Your task to perform on an android device: visit the assistant section in the google photos Image 0: 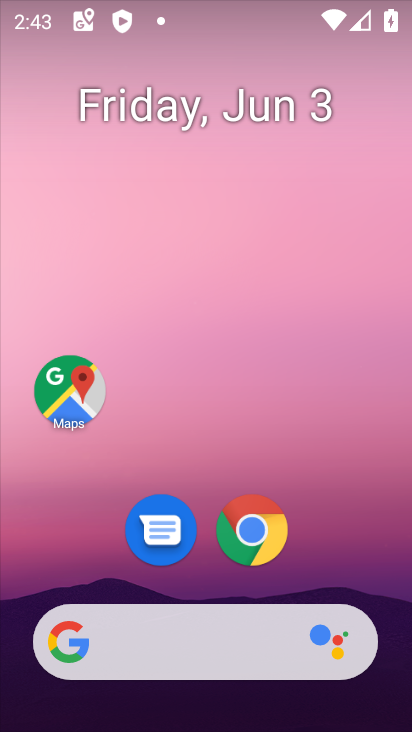
Step 0: drag from (316, 523) to (223, 169)
Your task to perform on an android device: visit the assistant section in the google photos Image 1: 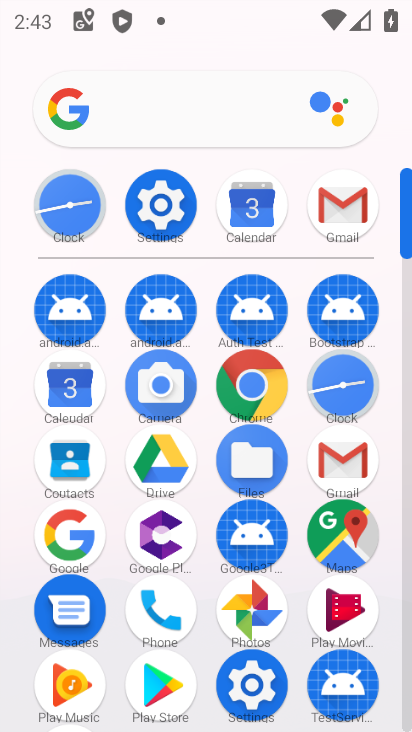
Step 1: click (244, 599)
Your task to perform on an android device: visit the assistant section in the google photos Image 2: 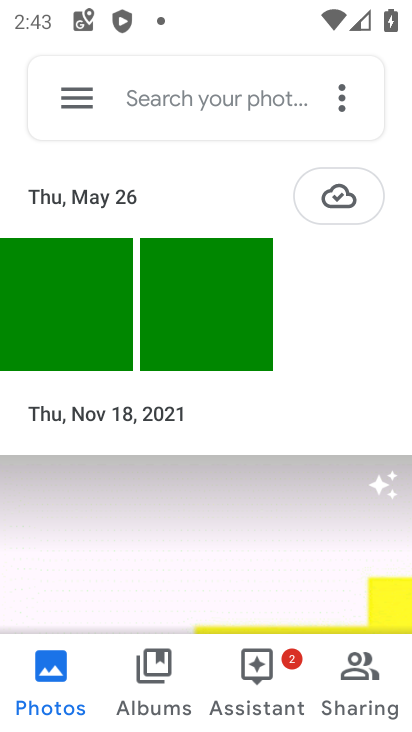
Step 2: click (244, 691)
Your task to perform on an android device: visit the assistant section in the google photos Image 3: 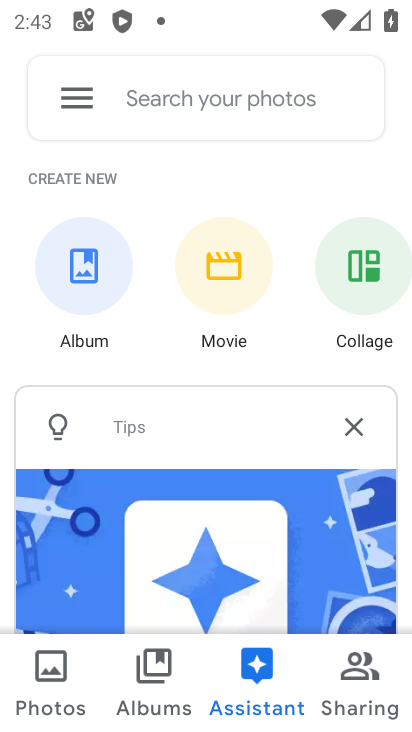
Step 3: task complete